Your task to perform on an android device: Toggle the flashlight Image 0: 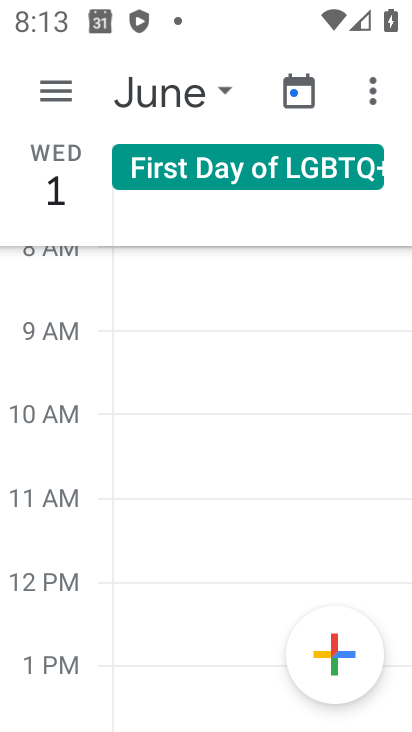
Step 0: press home button
Your task to perform on an android device: Toggle the flashlight Image 1: 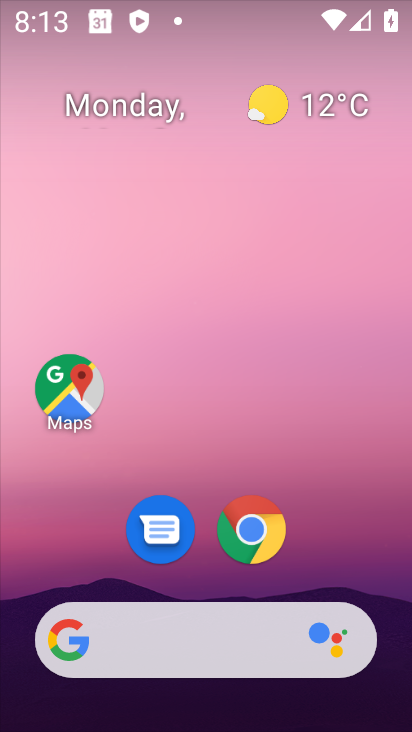
Step 1: task complete